Your task to perform on an android device: allow notifications from all sites in the chrome app Image 0: 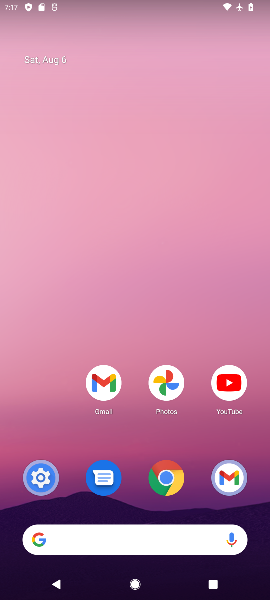
Step 0: press home button
Your task to perform on an android device: allow notifications from all sites in the chrome app Image 1: 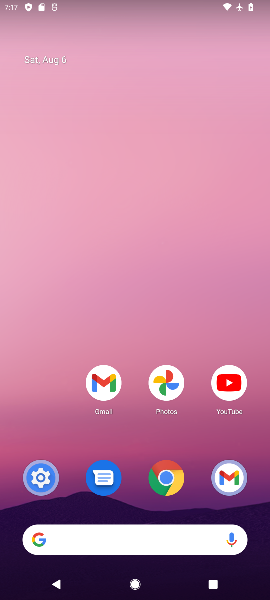
Step 1: click (175, 476)
Your task to perform on an android device: allow notifications from all sites in the chrome app Image 2: 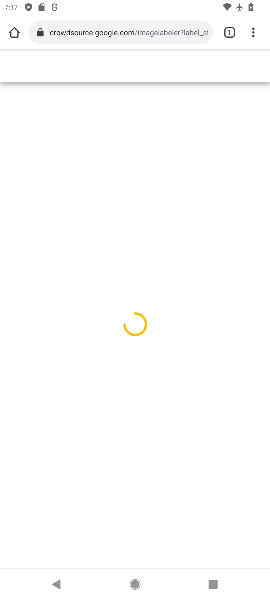
Step 2: drag from (249, 34) to (151, 432)
Your task to perform on an android device: allow notifications from all sites in the chrome app Image 3: 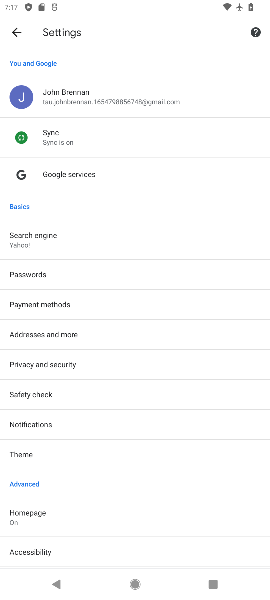
Step 3: drag from (83, 483) to (99, 266)
Your task to perform on an android device: allow notifications from all sites in the chrome app Image 4: 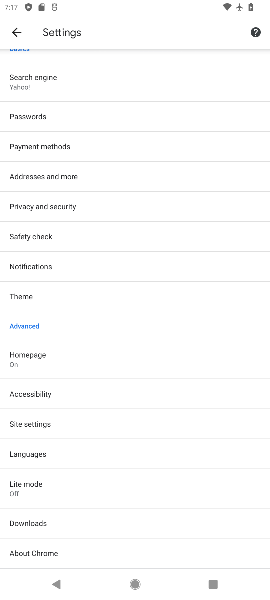
Step 4: drag from (86, 325) to (98, 204)
Your task to perform on an android device: allow notifications from all sites in the chrome app Image 5: 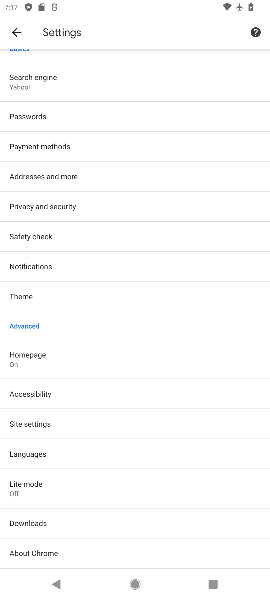
Step 5: click (58, 418)
Your task to perform on an android device: allow notifications from all sites in the chrome app Image 6: 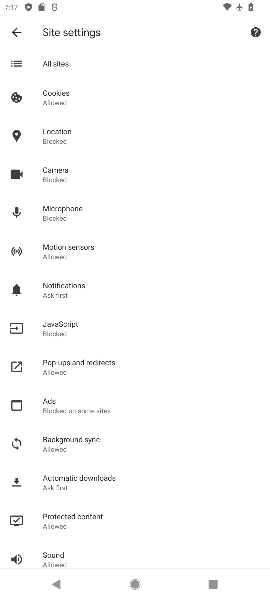
Step 6: click (64, 294)
Your task to perform on an android device: allow notifications from all sites in the chrome app Image 7: 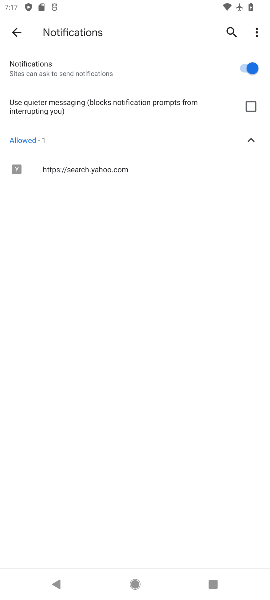
Step 7: task complete